Your task to perform on an android device: toggle notifications settings in the gmail app Image 0: 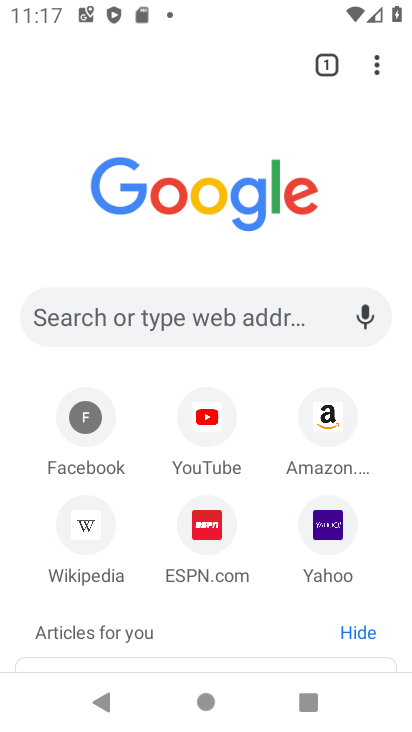
Step 0: press home button
Your task to perform on an android device: toggle notifications settings in the gmail app Image 1: 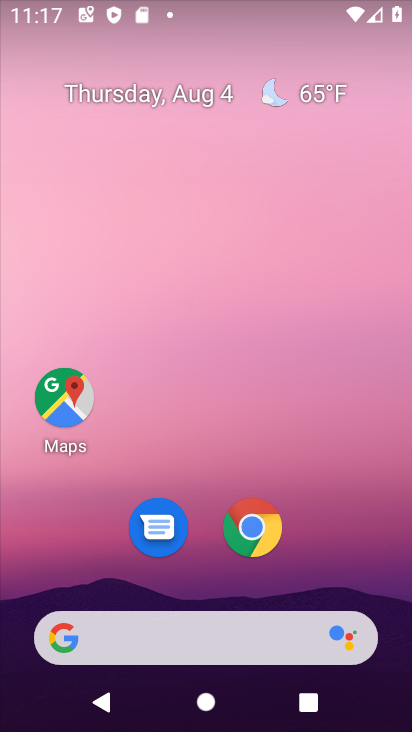
Step 1: drag from (160, 682) to (256, 43)
Your task to perform on an android device: toggle notifications settings in the gmail app Image 2: 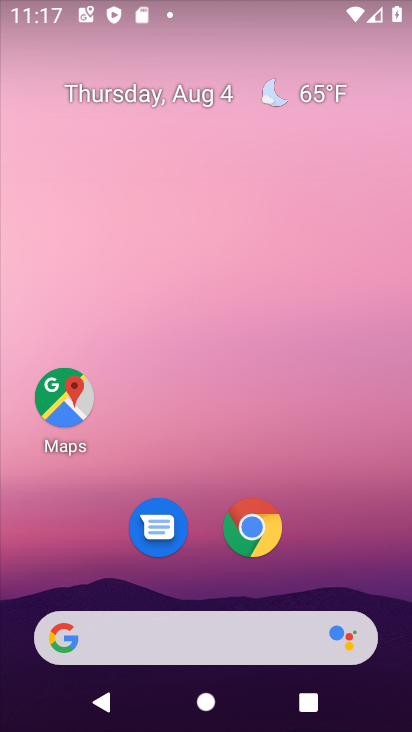
Step 2: drag from (172, 684) to (341, 149)
Your task to perform on an android device: toggle notifications settings in the gmail app Image 3: 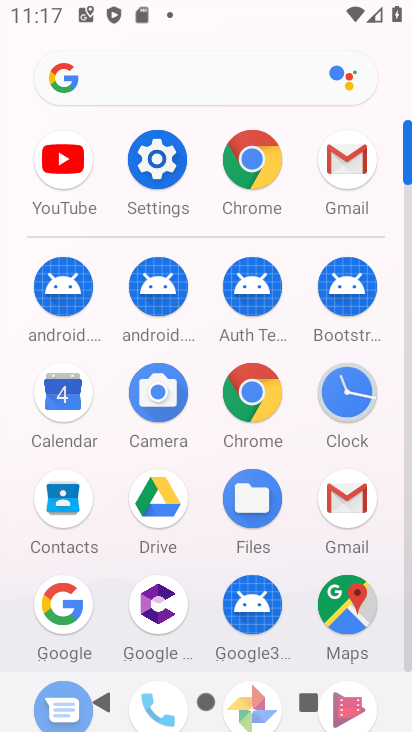
Step 3: click (362, 167)
Your task to perform on an android device: toggle notifications settings in the gmail app Image 4: 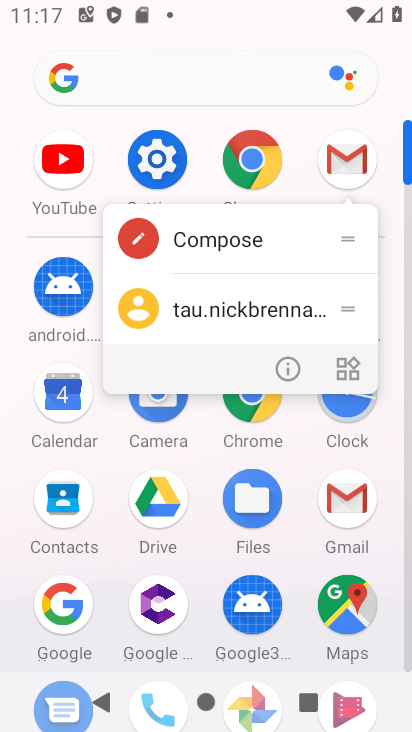
Step 4: click (289, 369)
Your task to perform on an android device: toggle notifications settings in the gmail app Image 5: 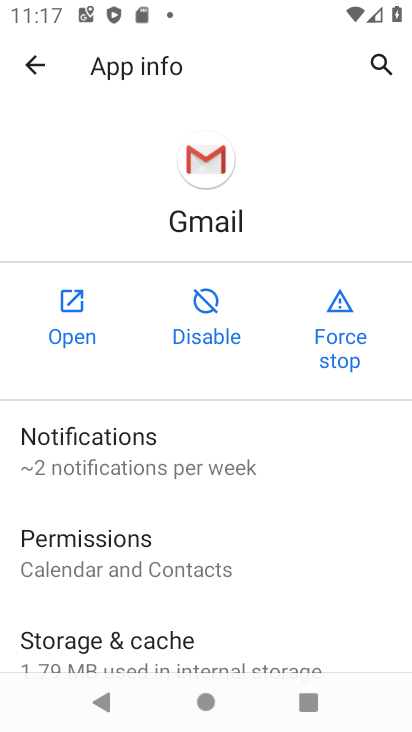
Step 5: click (242, 463)
Your task to perform on an android device: toggle notifications settings in the gmail app Image 6: 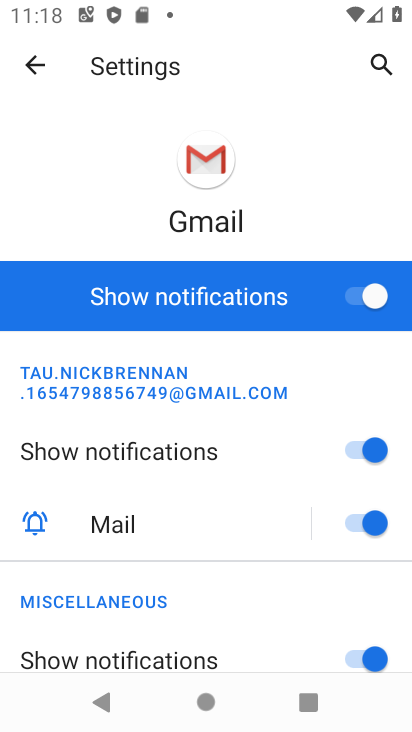
Step 6: click (372, 286)
Your task to perform on an android device: toggle notifications settings in the gmail app Image 7: 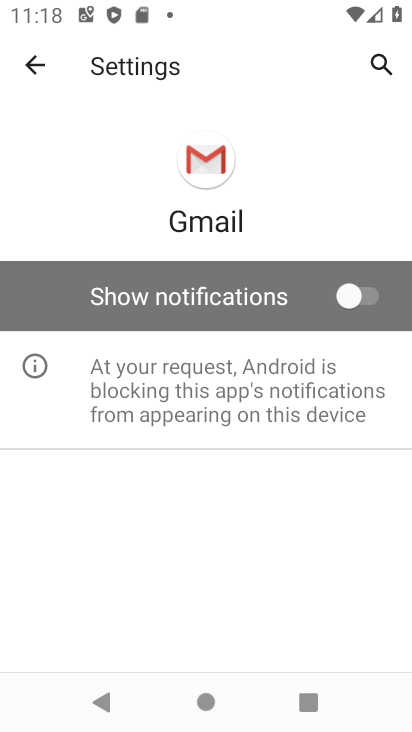
Step 7: task complete